Your task to perform on an android device: Open Youtube and go to "Your channel" Image 0: 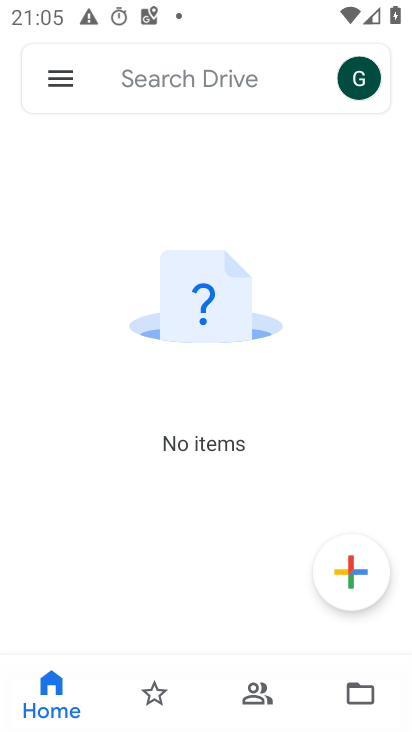
Step 0: press home button
Your task to perform on an android device: Open Youtube and go to "Your channel" Image 1: 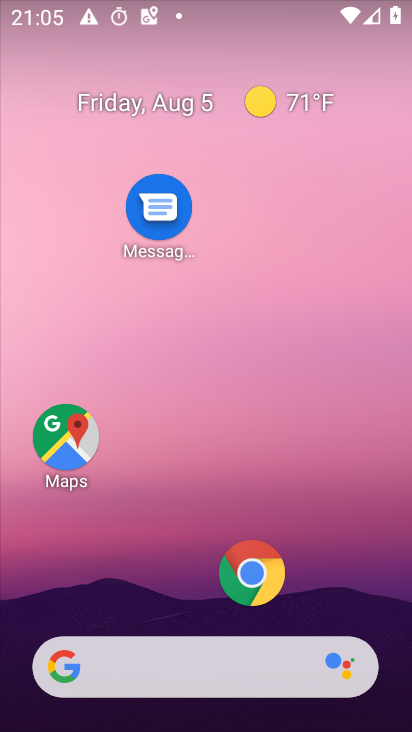
Step 1: drag from (318, 593) to (359, 99)
Your task to perform on an android device: Open Youtube and go to "Your channel" Image 2: 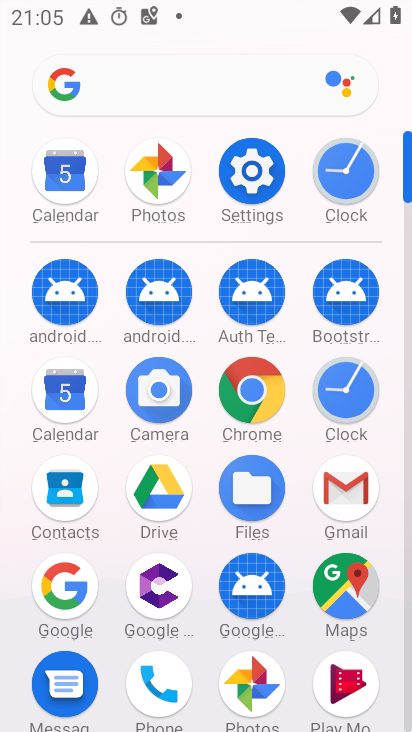
Step 2: drag from (205, 647) to (223, 279)
Your task to perform on an android device: Open Youtube and go to "Your channel" Image 3: 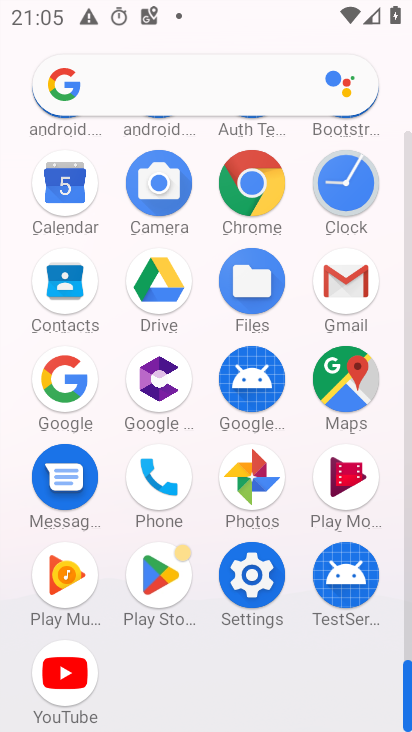
Step 3: click (51, 675)
Your task to perform on an android device: Open Youtube and go to "Your channel" Image 4: 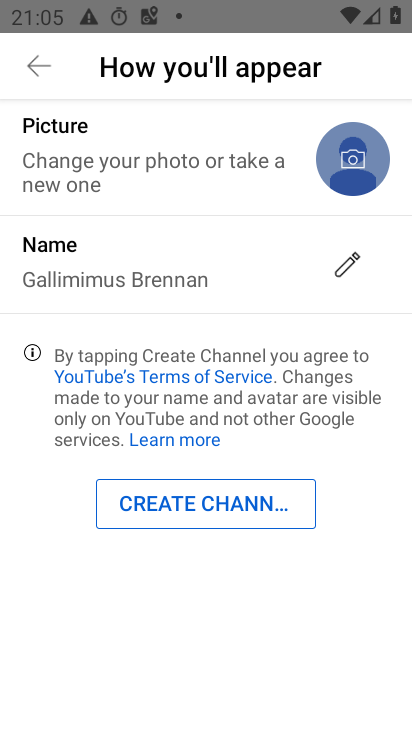
Step 4: task complete